Your task to perform on an android device: turn on the 12-hour format for clock Image 0: 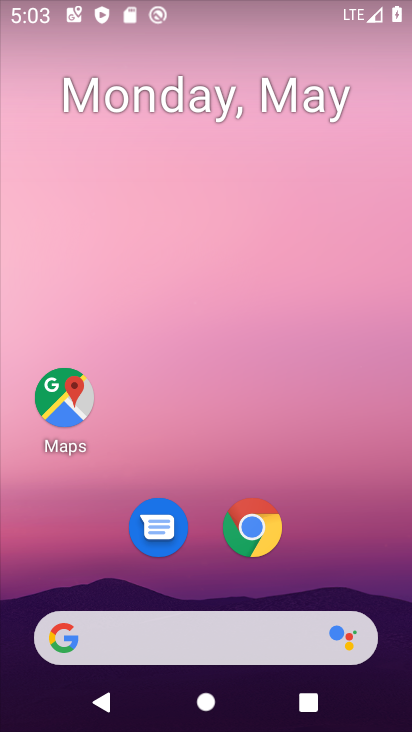
Step 0: drag from (375, 612) to (319, 170)
Your task to perform on an android device: turn on the 12-hour format for clock Image 1: 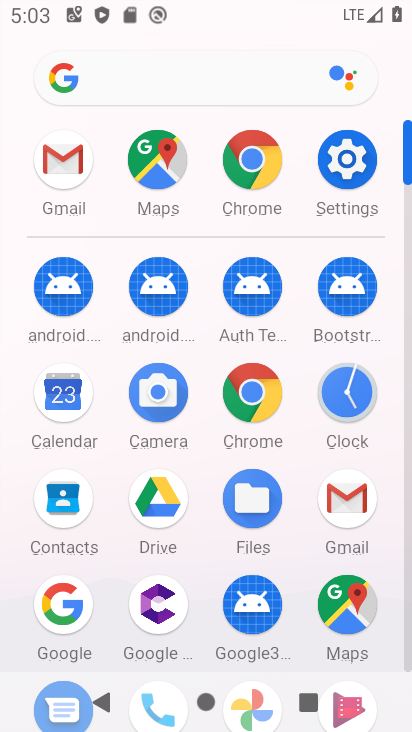
Step 1: click (328, 158)
Your task to perform on an android device: turn on the 12-hour format for clock Image 2: 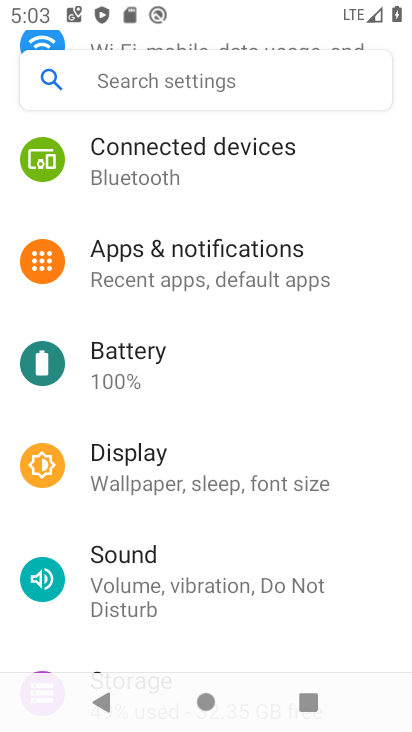
Step 2: press home button
Your task to perform on an android device: turn on the 12-hour format for clock Image 3: 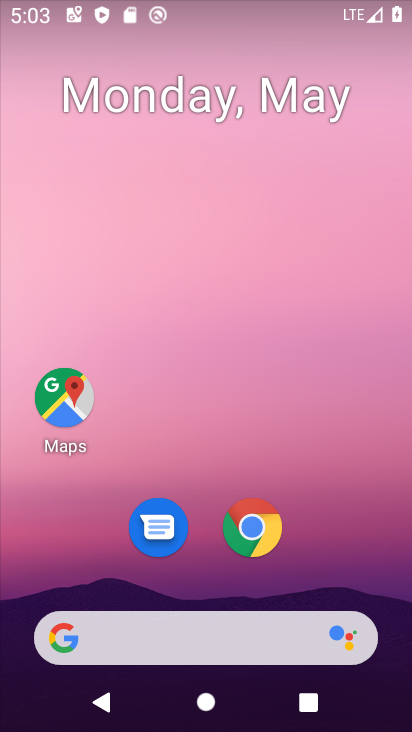
Step 3: drag from (385, 562) to (345, 125)
Your task to perform on an android device: turn on the 12-hour format for clock Image 4: 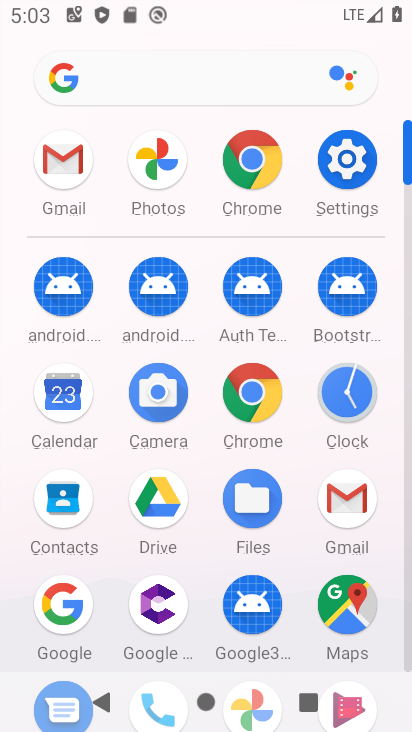
Step 4: click (341, 415)
Your task to perform on an android device: turn on the 12-hour format for clock Image 5: 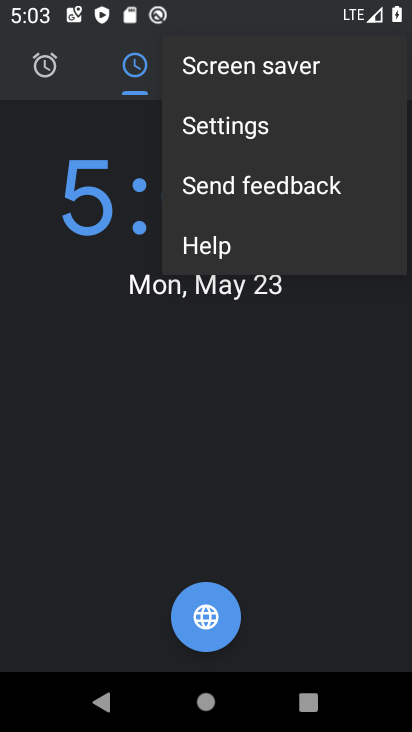
Step 5: click (244, 134)
Your task to perform on an android device: turn on the 12-hour format for clock Image 6: 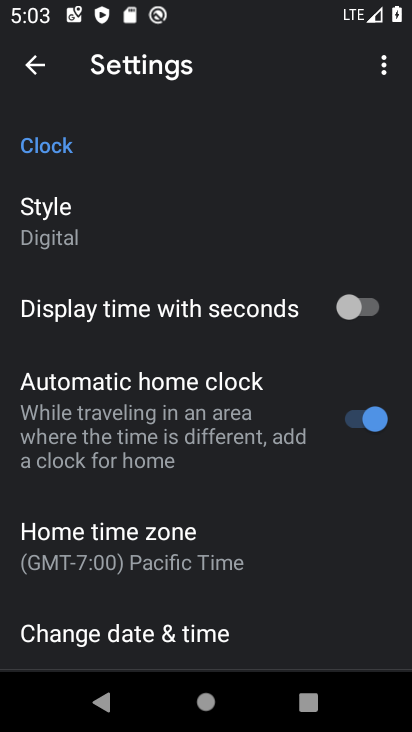
Step 6: click (73, 637)
Your task to perform on an android device: turn on the 12-hour format for clock Image 7: 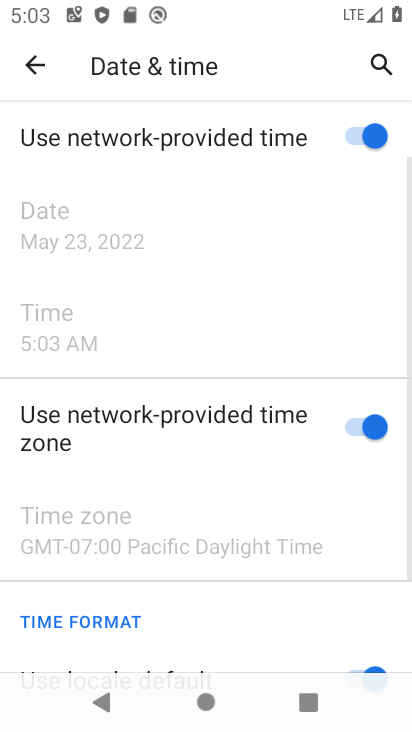
Step 7: task complete